Your task to perform on an android device: turn off airplane mode Image 0: 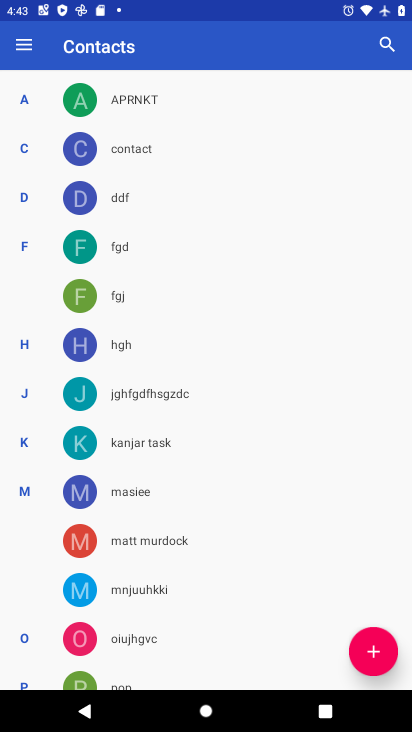
Step 0: press home button
Your task to perform on an android device: turn off airplane mode Image 1: 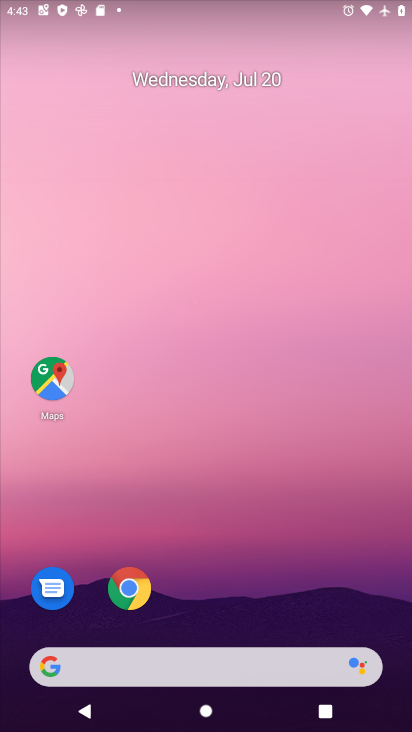
Step 1: drag from (254, 589) to (270, 75)
Your task to perform on an android device: turn off airplane mode Image 2: 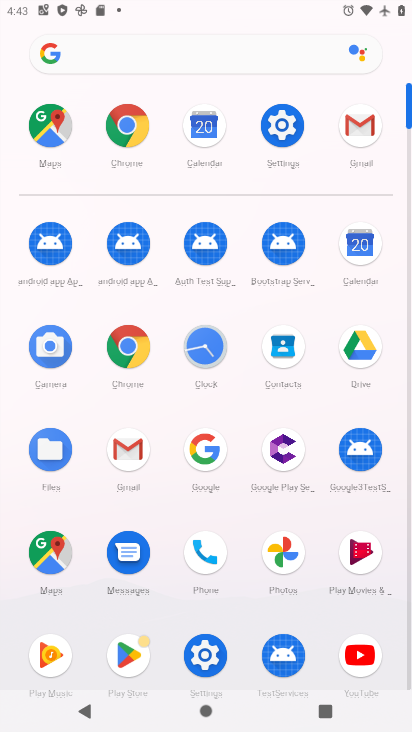
Step 2: click (282, 119)
Your task to perform on an android device: turn off airplane mode Image 3: 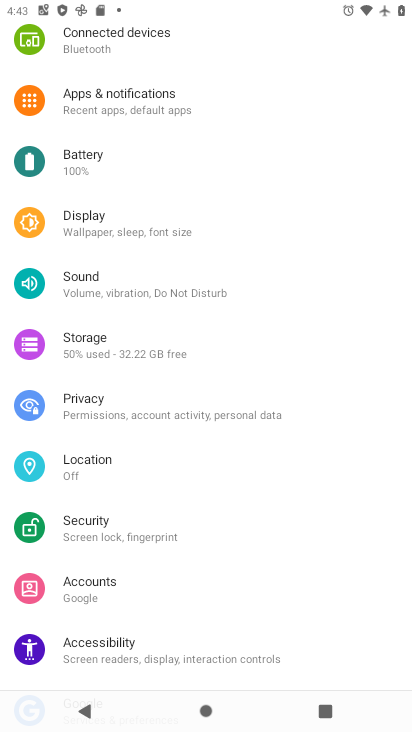
Step 3: drag from (135, 124) to (92, 523)
Your task to perform on an android device: turn off airplane mode Image 4: 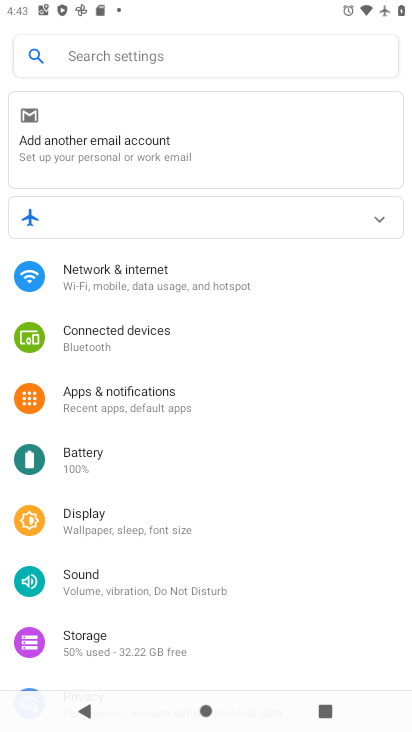
Step 4: click (133, 282)
Your task to perform on an android device: turn off airplane mode Image 5: 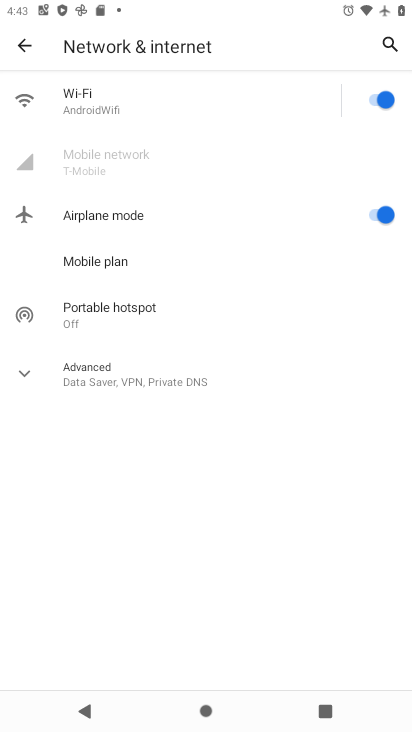
Step 5: click (382, 215)
Your task to perform on an android device: turn off airplane mode Image 6: 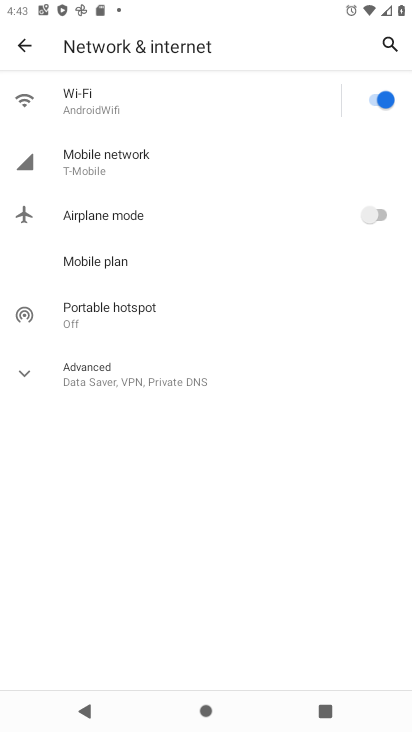
Step 6: task complete